Your task to perform on an android device: Check the news Image 0: 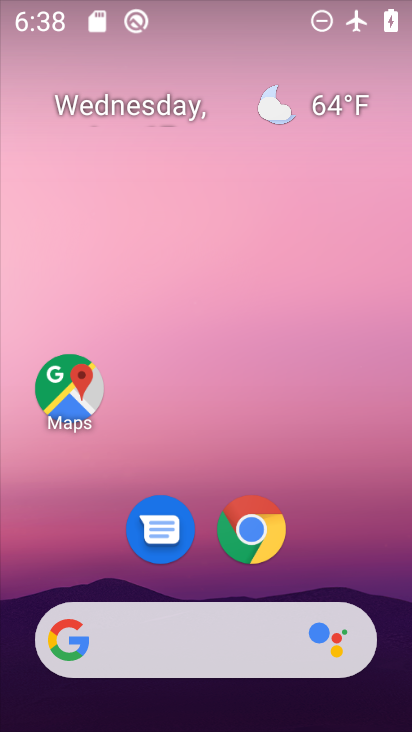
Step 0: click (151, 622)
Your task to perform on an android device: Check the news Image 1: 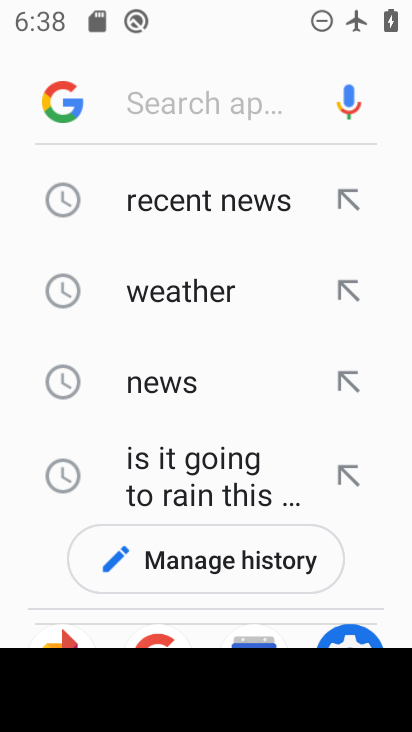
Step 1: click (153, 389)
Your task to perform on an android device: Check the news Image 2: 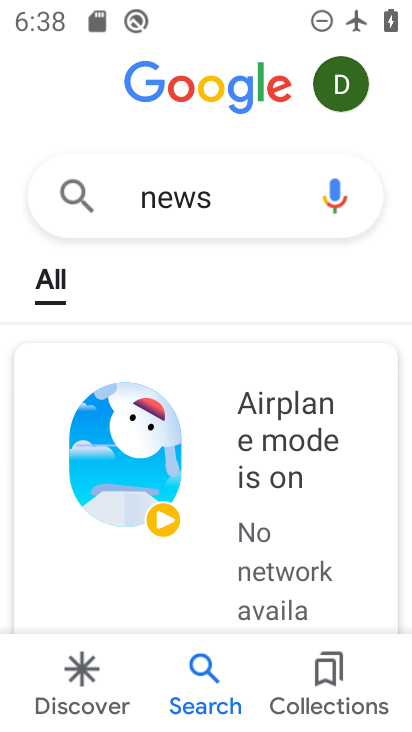
Step 2: task complete